Your task to perform on an android device: Go to accessibility settings Image 0: 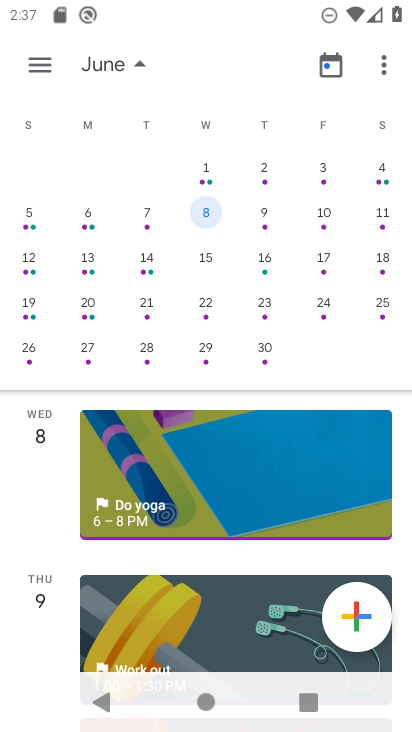
Step 0: press home button
Your task to perform on an android device: Go to accessibility settings Image 1: 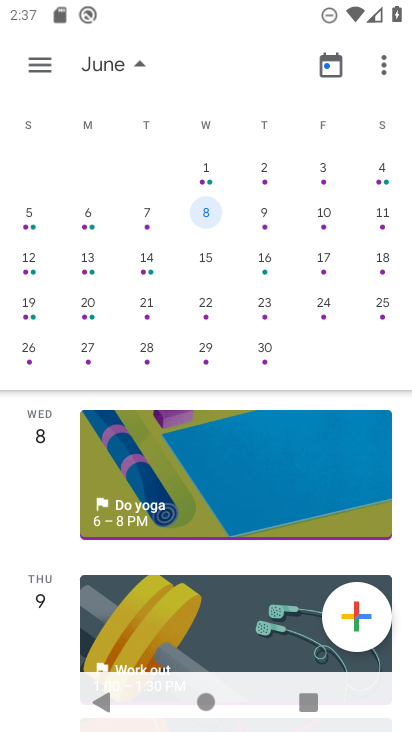
Step 1: press home button
Your task to perform on an android device: Go to accessibility settings Image 2: 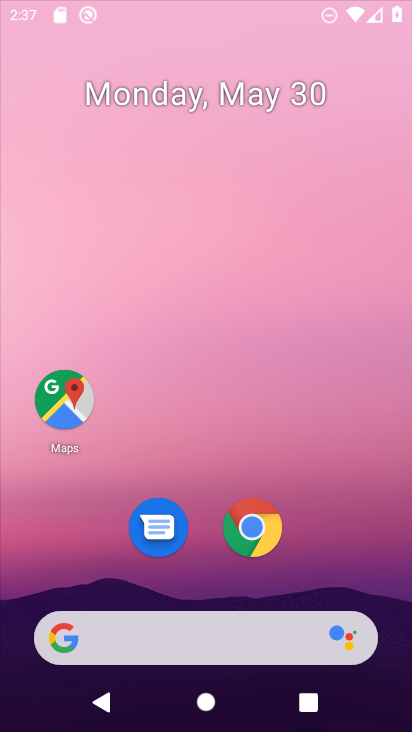
Step 2: press home button
Your task to perform on an android device: Go to accessibility settings Image 3: 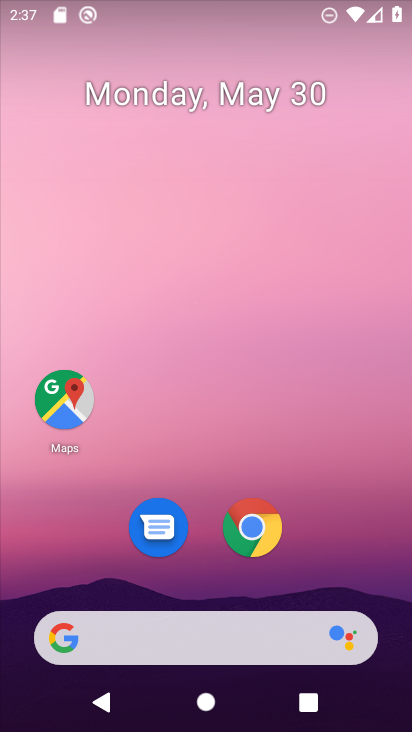
Step 3: drag from (287, 375) to (281, 172)
Your task to perform on an android device: Go to accessibility settings Image 4: 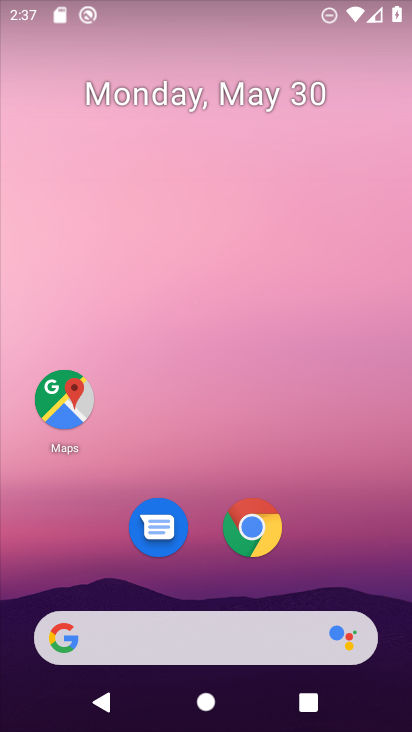
Step 4: drag from (287, 188) to (296, 31)
Your task to perform on an android device: Go to accessibility settings Image 5: 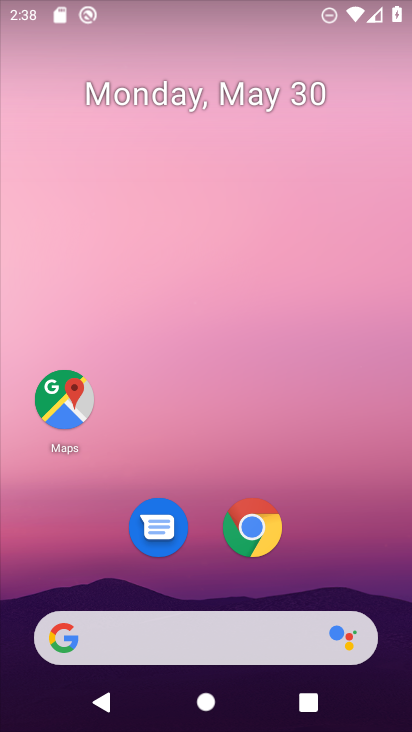
Step 5: drag from (260, 678) to (170, 202)
Your task to perform on an android device: Go to accessibility settings Image 6: 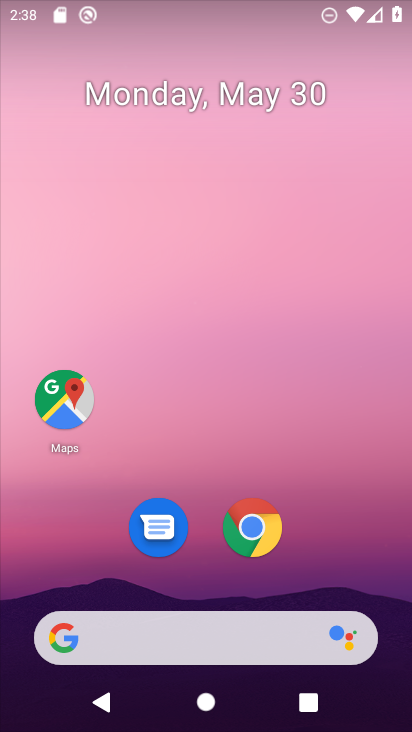
Step 6: drag from (216, 324) to (194, 13)
Your task to perform on an android device: Go to accessibility settings Image 7: 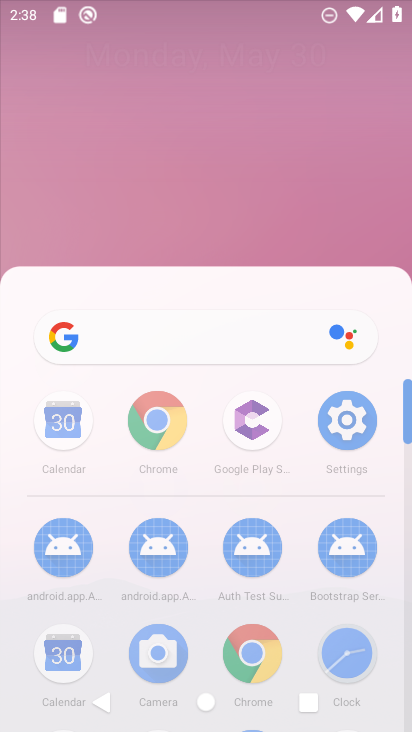
Step 7: drag from (276, 568) to (210, 92)
Your task to perform on an android device: Go to accessibility settings Image 8: 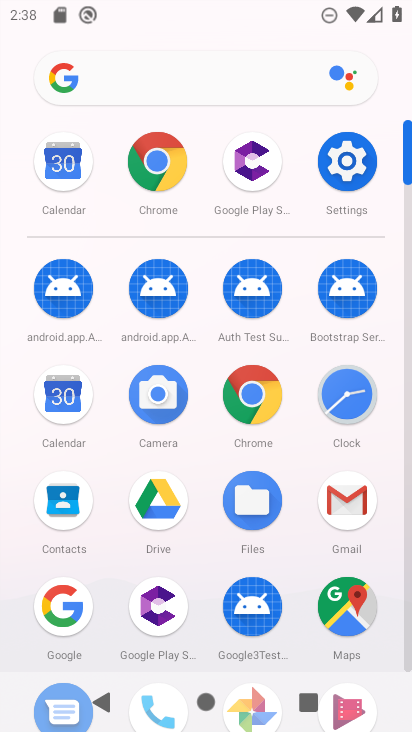
Step 8: drag from (260, 504) to (212, 234)
Your task to perform on an android device: Go to accessibility settings Image 9: 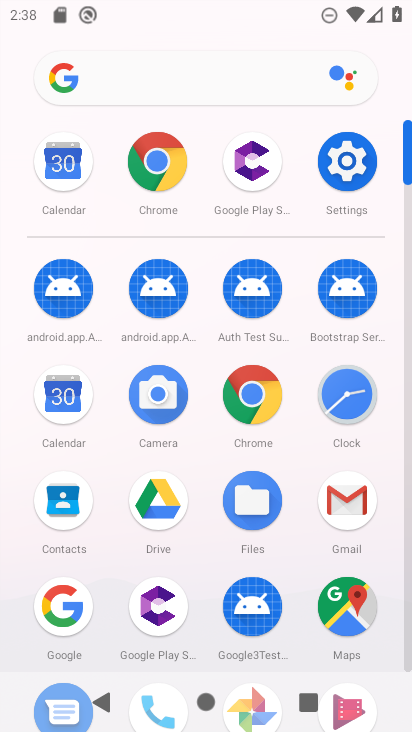
Step 9: click (349, 157)
Your task to perform on an android device: Go to accessibility settings Image 10: 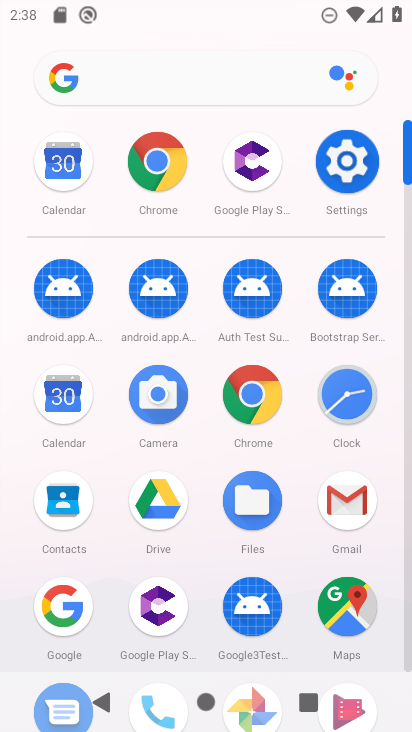
Step 10: click (349, 157)
Your task to perform on an android device: Go to accessibility settings Image 11: 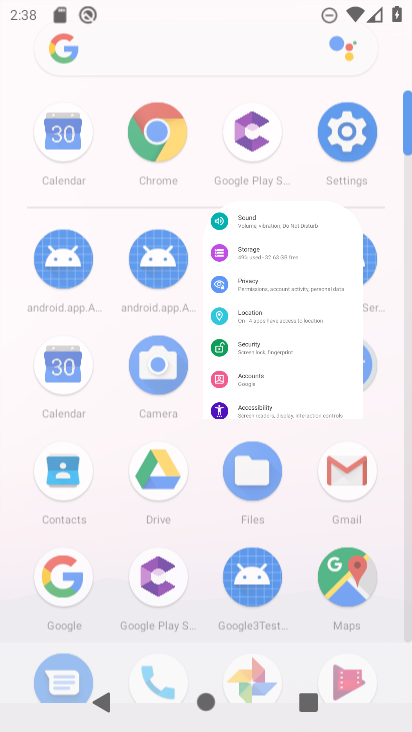
Step 11: click (348, 158)
Your task to perform on an android device: Go to accessibility settings Image 12: 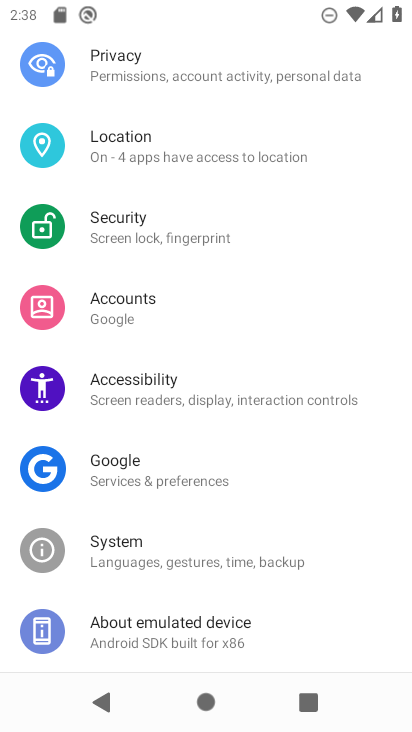
Step 12: click (345, 162)
Your task to perform on an android device: Go to accessibility settings Image 13: 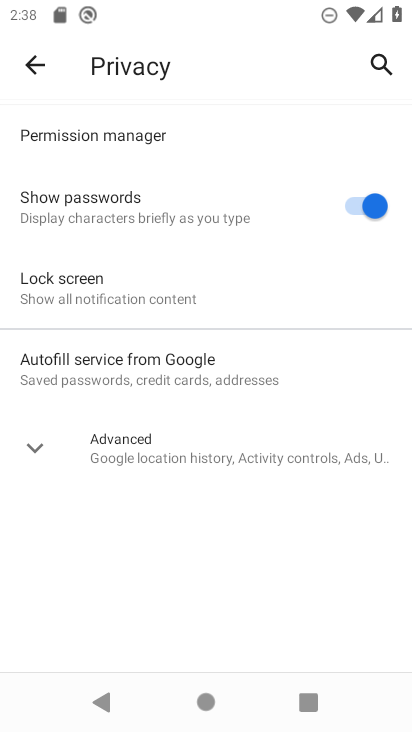
Step 13: click (133, 389)
Your task to perform on an android device: Go to accessibility settings Image 14: 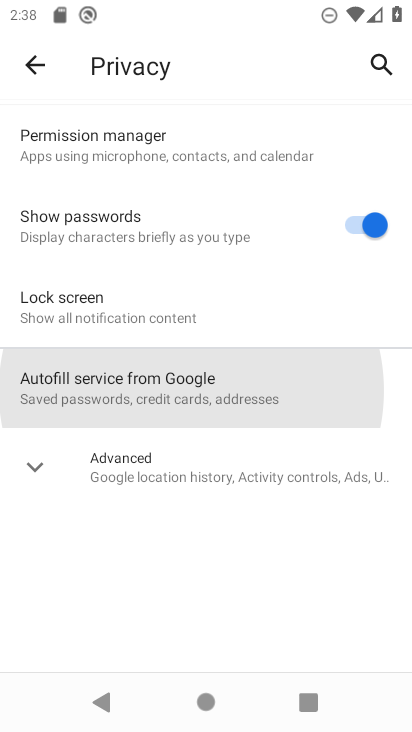
Step 14: click (133, 391)
Your task to perform on an android device: Go to accessibility settings Image 15: 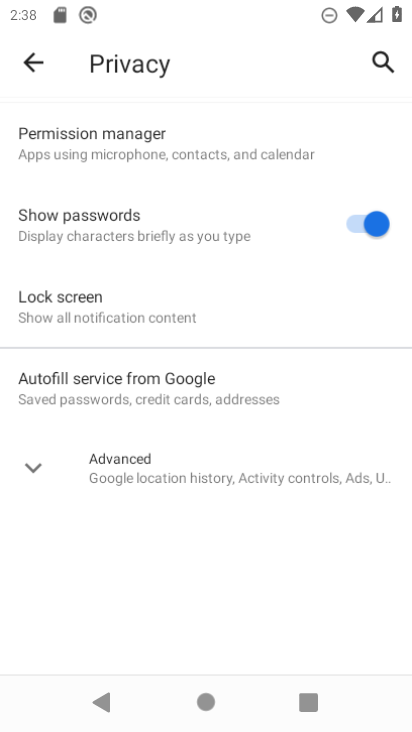
Step 15: click (133, 392)
Your task to perform on an android device: Go to accessibility settings Image 16: 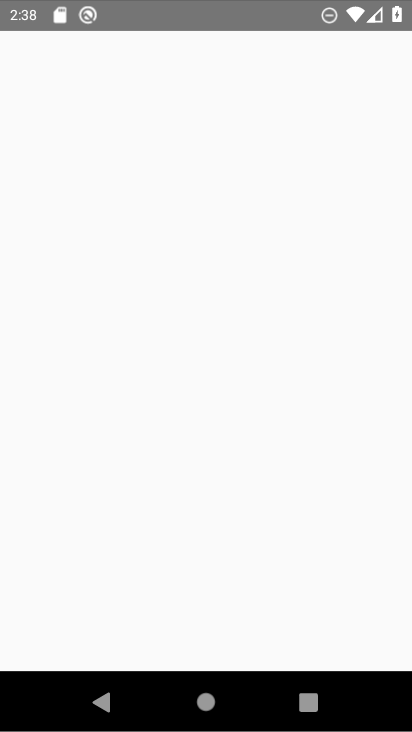
Step 16: click (133, 392)
Your task to perform on an android device: Go to accessibility settings Image 17: 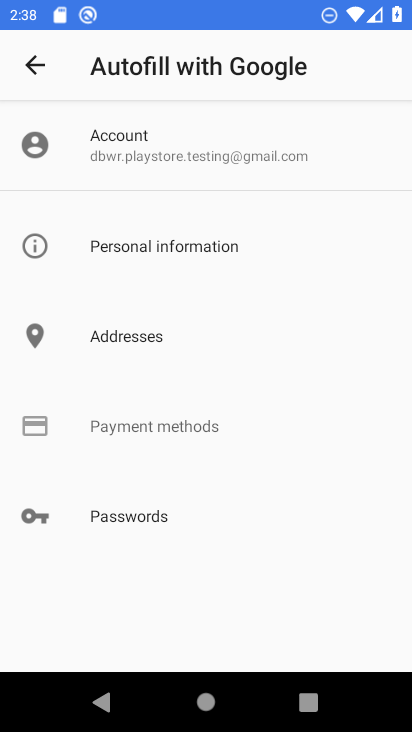
Step 17: task complete